Your task to perform on an android device: Open notification settings Image 0: 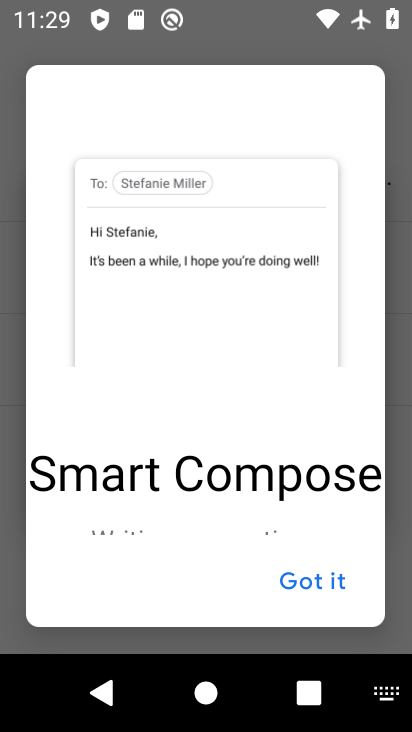
Step 0: press home button
Your task to perform on an android device: Open notification settings Image 1: 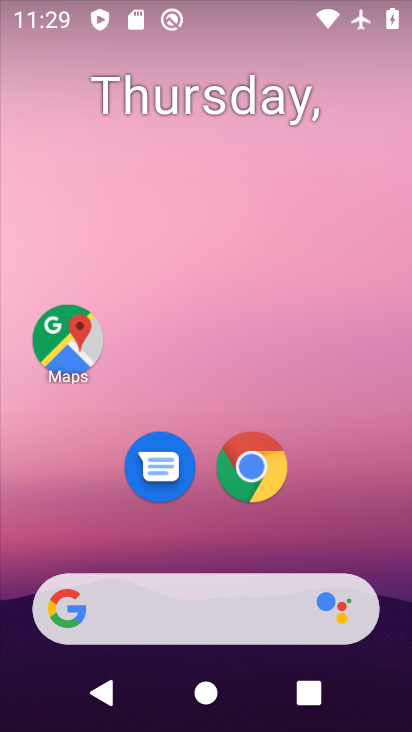
Step 1: drag from (346, 558) to (347, 0)
Your task to perform on an android device: Open notification settings Image 2: 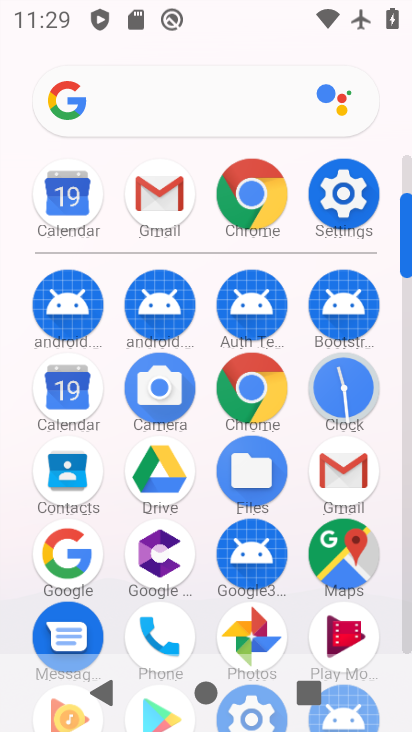
Step 2: click (352, 191)
Your task to perform on an android device: Open notification settings Image 3: 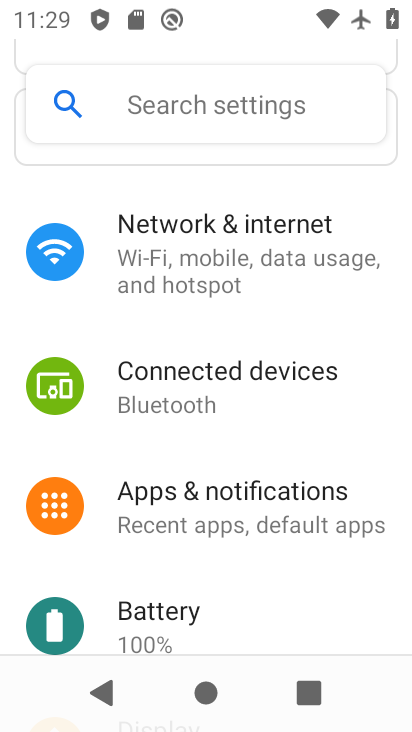
Step 3: click (212, 519)
Your task to perform on an android device: Open notification settings Image 4: 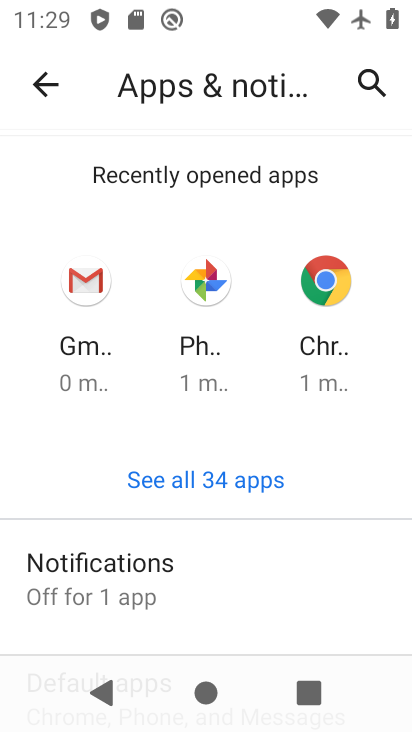
Step 4: task complete